Your task to perform on an android device: Go to Android settings Image 0: 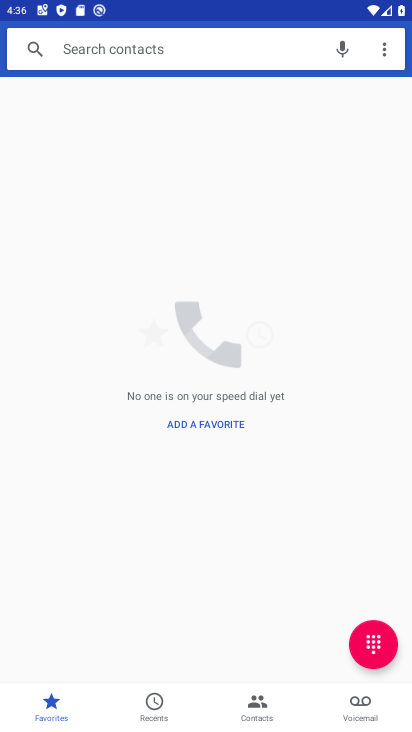
Step 0: press back button
Your task to perform on an android device: Go to Android settings Image 1: 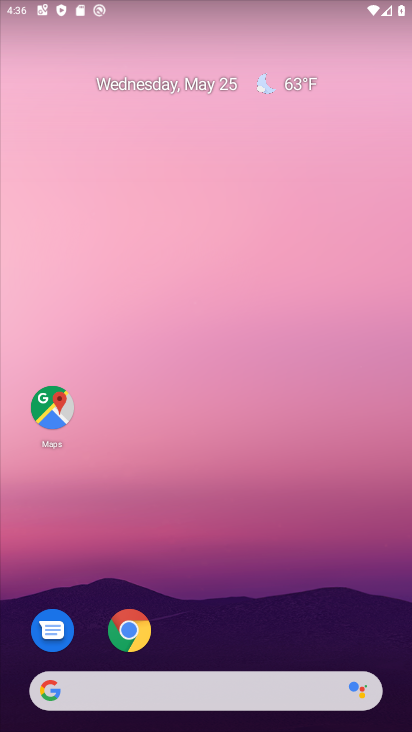
Step 1: drag from (257, 624) to (256, 52)
Your task to perform on an android device: Go to Android settings Image 2: 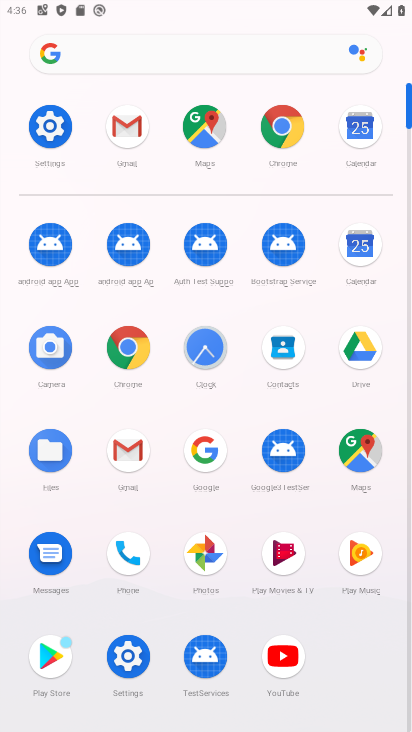
Step 2: click (28, 133)
Your task to perform on an android device: Go to Android settings Image 3: 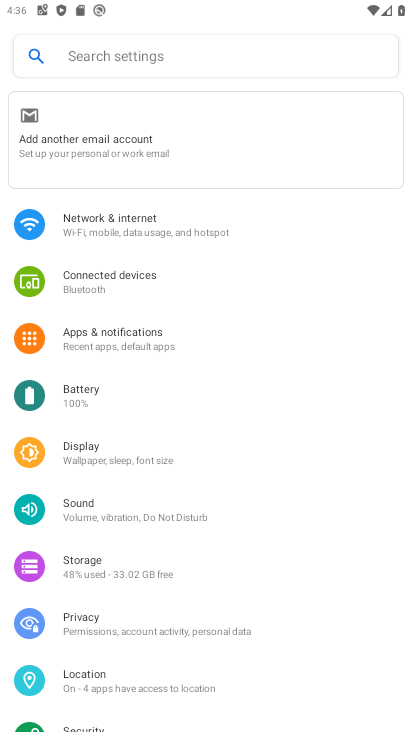
Step 3: drag from (213, 622) to (293, 106)
Your task to perform on an android device: Go to Android settings Image 4: 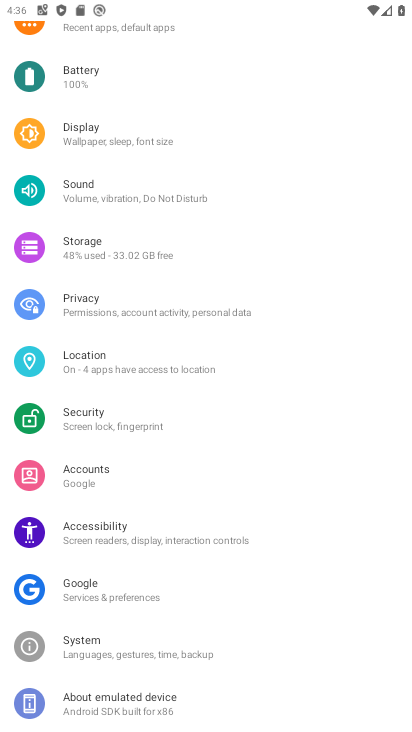
Step 4: drag from (135, 668) to (171, 114)
Your task to perform on an android device: Go to Android settings Image 5: 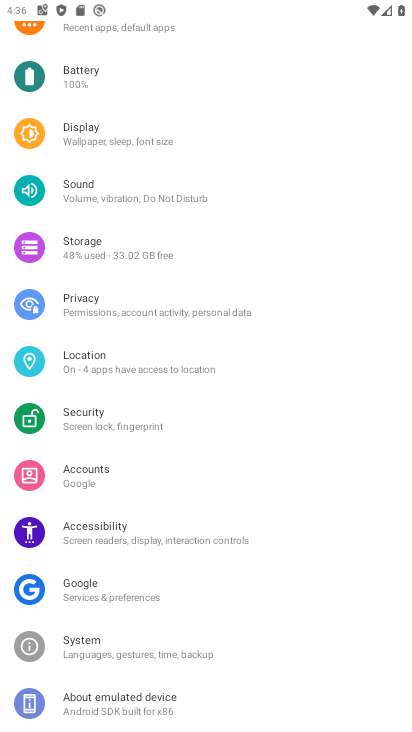
Step 5: click (123, 702)
Your task to perform on an android device: Go to Android settings Image 6: 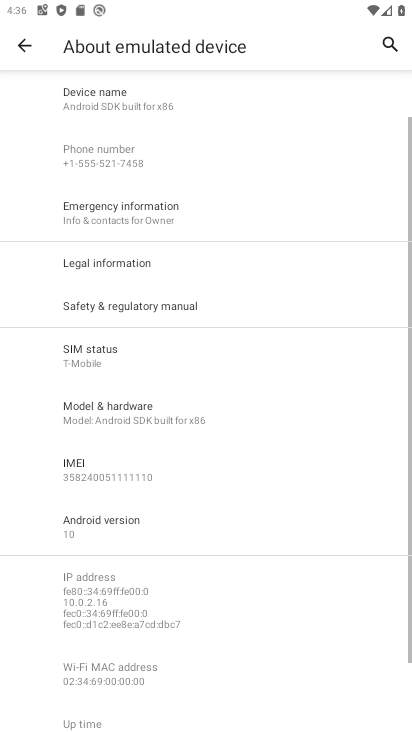
Step 6: click (113, 535)
Your task to perform on an android device: Go to Android settings Image 7: 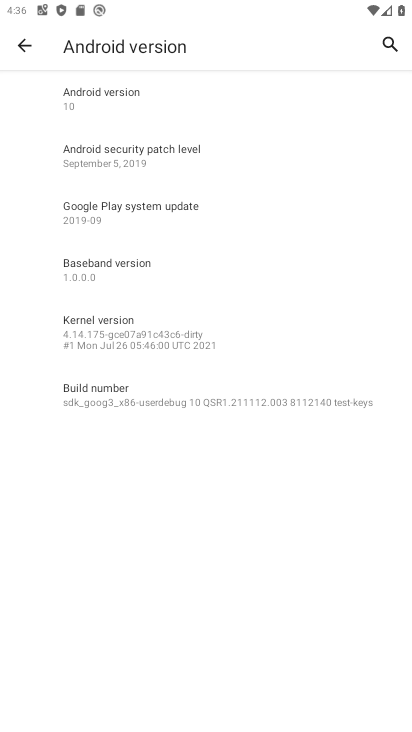
Step 7: task complete